Your task to perform on an android device: Turn on the flashlight Image 0: 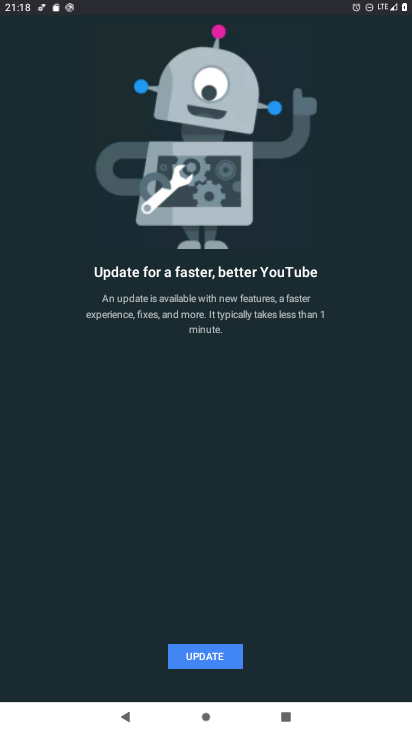
Step 0: press home button
Your task to perform on an android device: Turn on the flashlight Image 1: 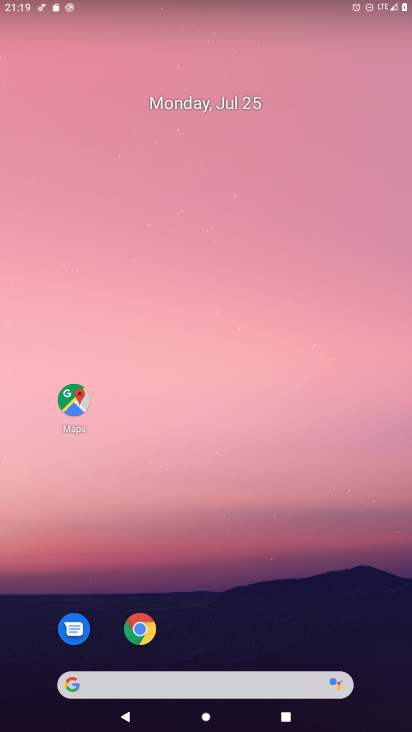
Step 1: drag from (233, 664) to (182, 9)
Your task to perform on an android device: Turn on the flashlight Image 2: 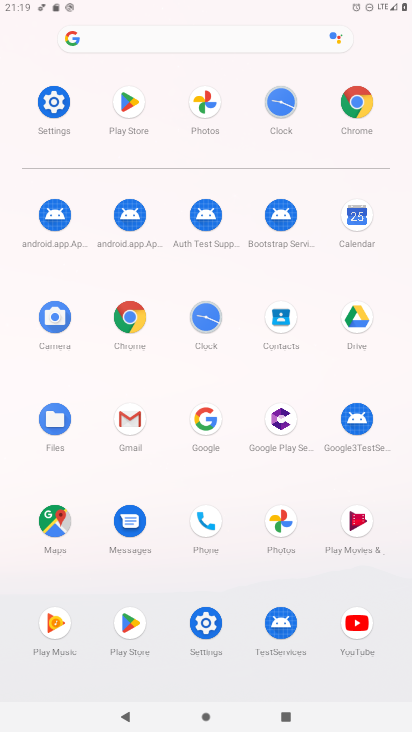
Step 2: click (206, 620)
Your task to perform on an android device: Turn on the flashlight Image 3: 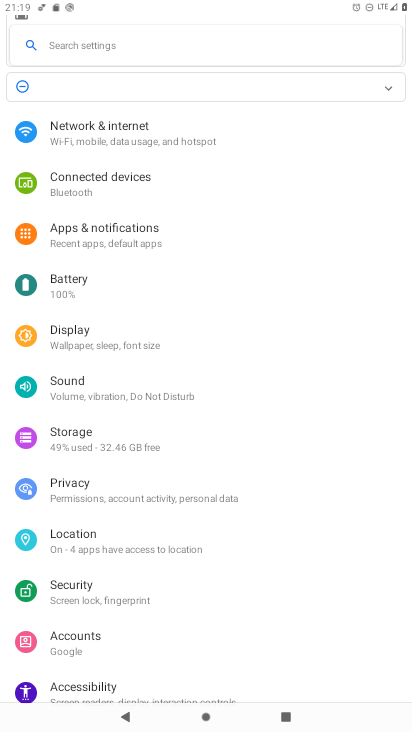
Step 3: click (120, 346)
Your task to perform on an android device: Turn on the flashlight Image 4: 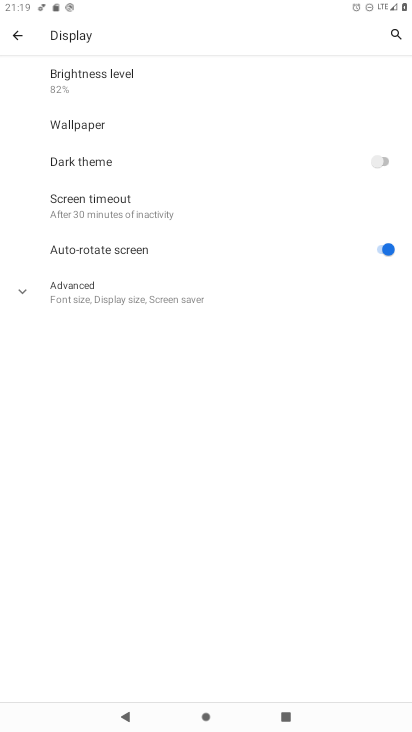
Step 4: click (87, 297)
Your task to perform on an android device: Turn on the flashlight Image 5: 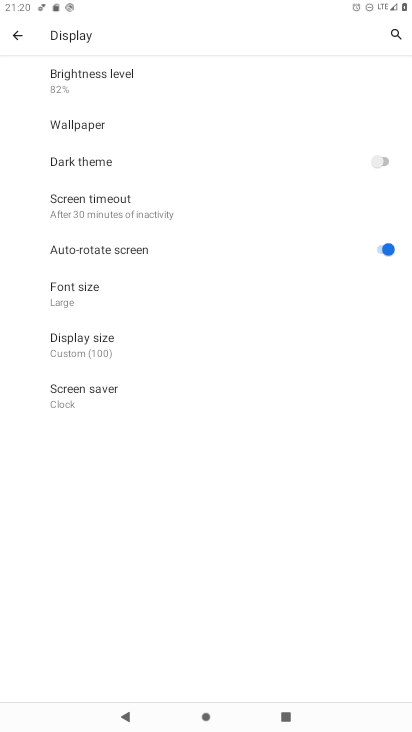
Step 5: click (92, 401)
Your task to perform on an android device: Turn on the flashlight Image 6: 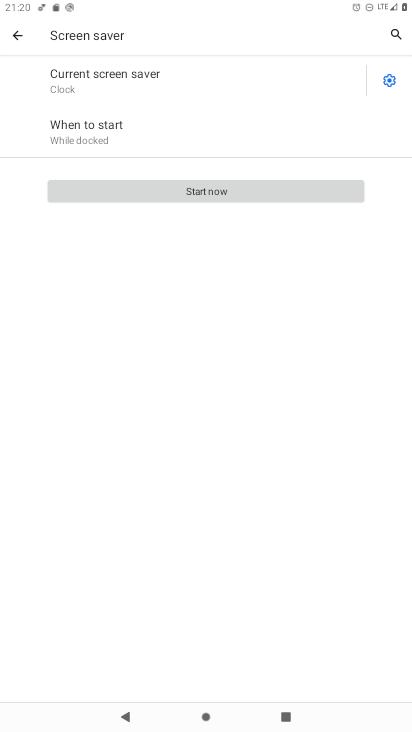
Step 6: task complete